Your task to perform on an android device: What's on my calendar tomorrow? Image 0: 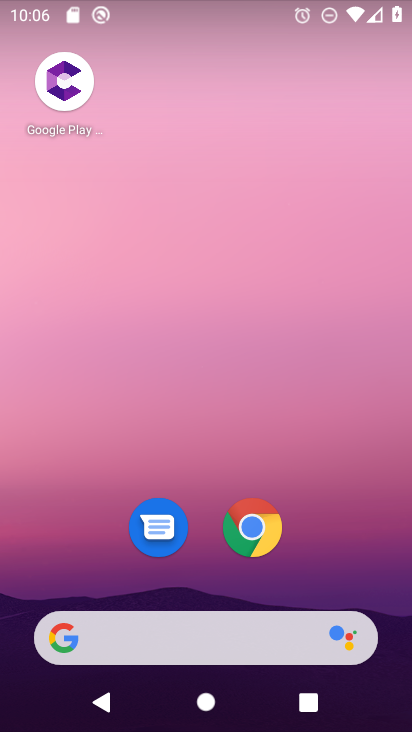
Step 0: drag from (324, 577) to (243, 70)
Your task to perform on an android device: What's on my calendar tomorrow? Image 1: 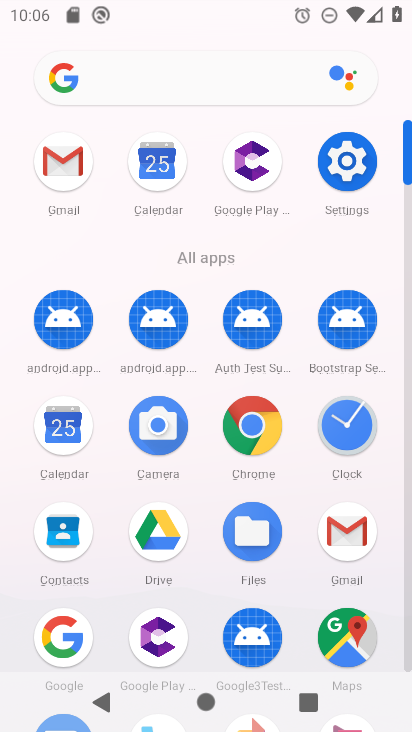
Step 1: click (65, 430)
Your task to perform on an android device: What's on my calendar tomorrow? Image 2: 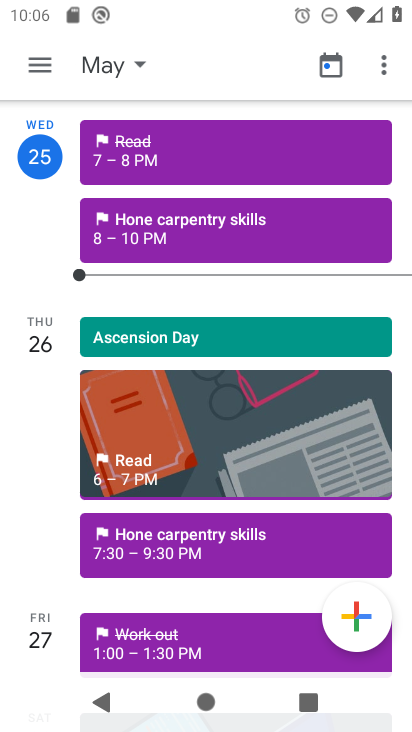
Step 2: click (142, 62)
Your task to perform on an android device: What's on my calendar tomorrow? Image 3: 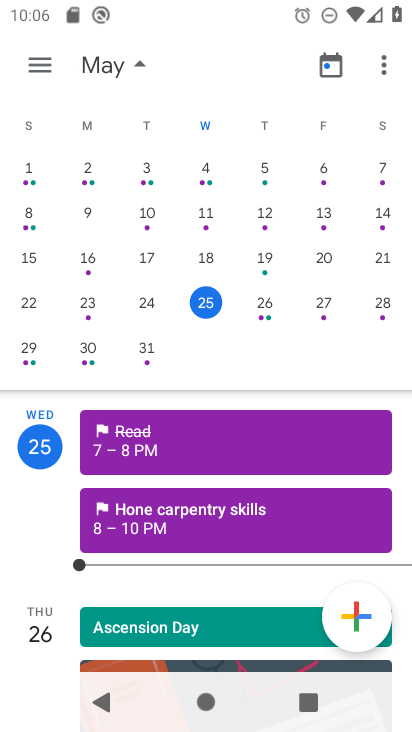
Step 3: click (264, 298)
Your task to perform on an android device: What's on my calendar tomorrow? Image 4: 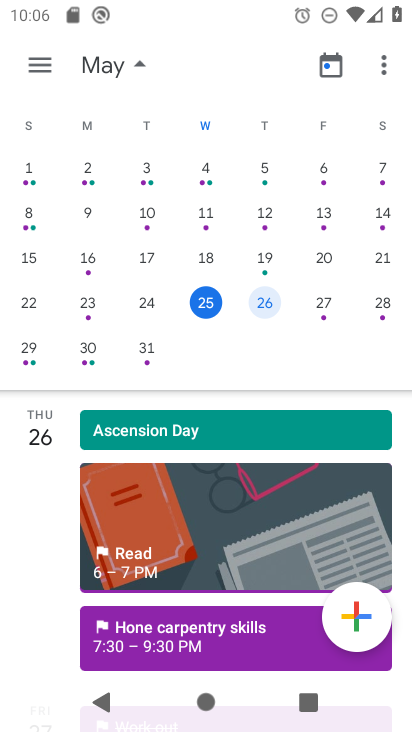
Step 4: click (48, 69)
Your task to perform on an android device: What's on my calendar tomorrow? Image 5: 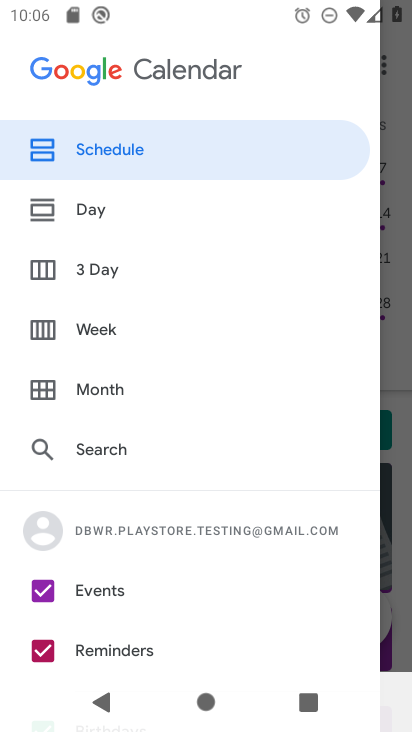
Step 5: click (122, 140)
Your task to perform on an android device: What's on my calendar tomorrow? Image 6: 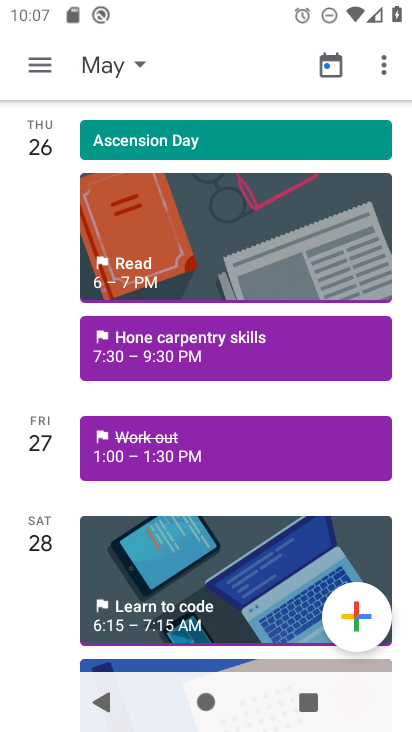
Step 6: task complete